Your task to perform on an android device: remove spam from my inbox in the gmail app Image 0: 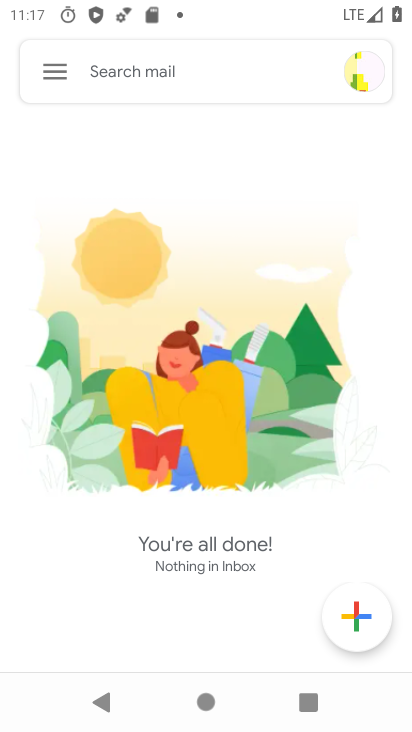
Step 0: click (52, 71)
Your task to perform on an android device: remove spam from my inbox in the gmail app Image 1: 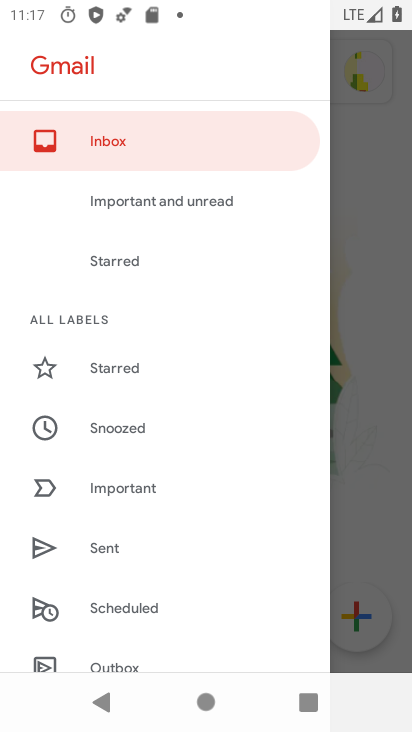
Step 1: drag from (148, 624) to (143, 289)
Your task to perform on an android device: remove spam from my inbox in the gmail app Image 2: 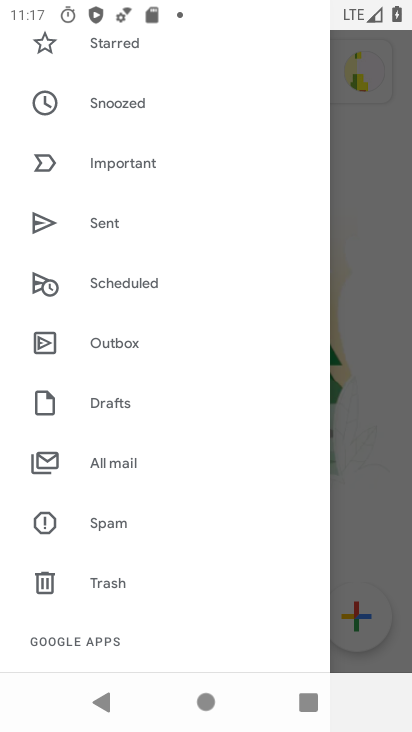
Step 2: click (116, 522)
Your task to perform on an android device: remove spam from my inbox in the gmail app Image 3: 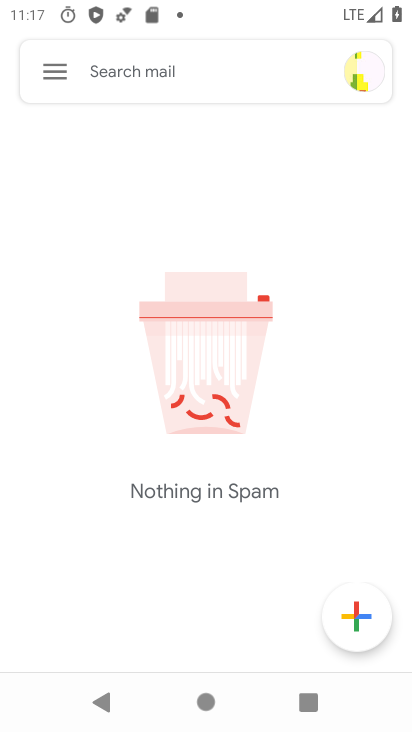
Step 3: task complete